Your task to perform on an android device: Open accessibility settings Image 0: 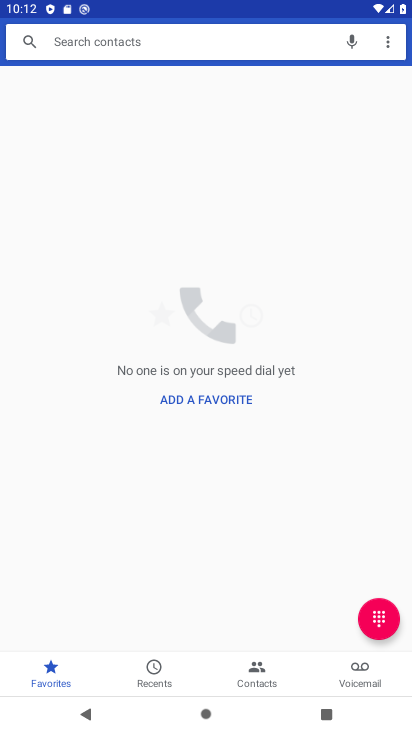
Step 0: press home button
Your task to perform on an android device: Open accessibility settings Image 1: 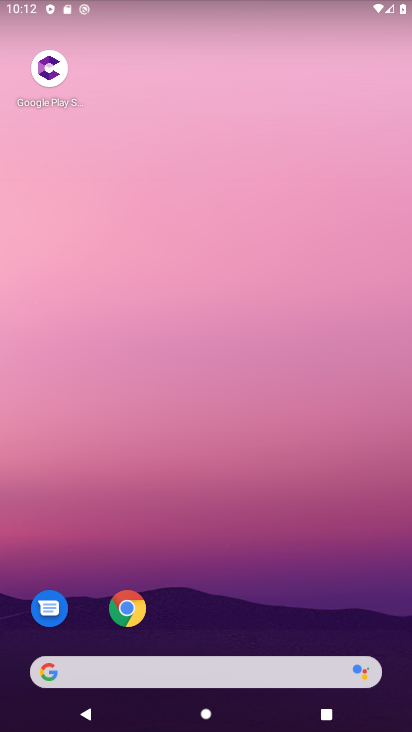
Step 1: drag from (351, 310) to (341, 247)
Your task to perform on an android device: Open accessibility settings Image 2: 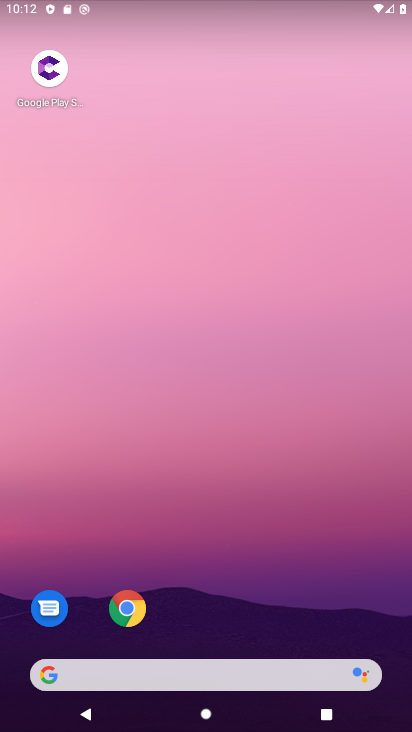
Step 2: drag from (406, 388) to (362, 112)
Your task to perform on an android device: Open accessibility settings Image 3: 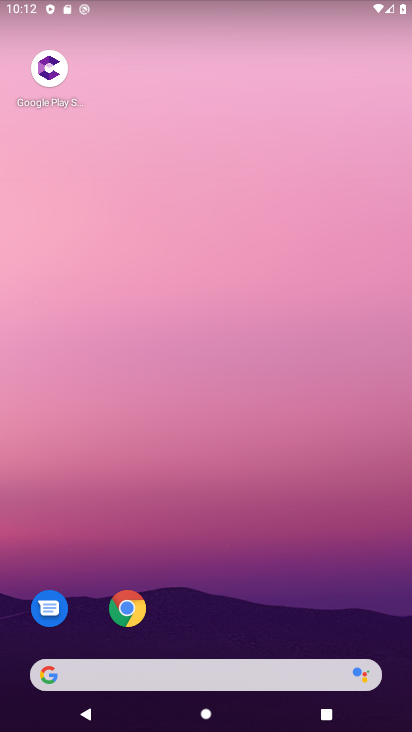
Step 3: drag from (398, 665) to (331, 21)
Your task to perform on an android device: Open accessibility settings Image 4: 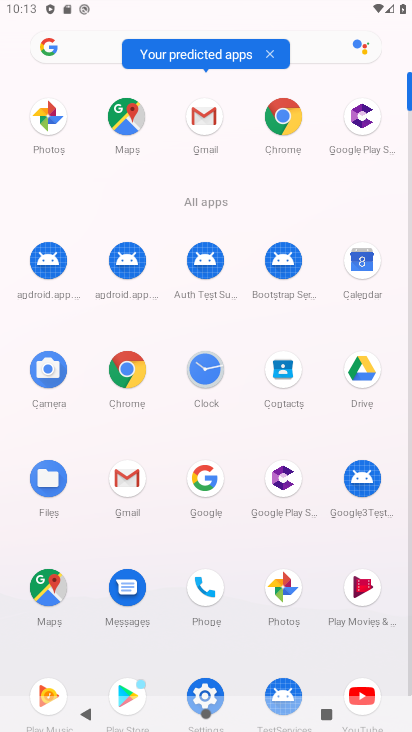
Step 4: click (202, 693)
Your task to perform on an android device: Open accessibility settings Image 5: 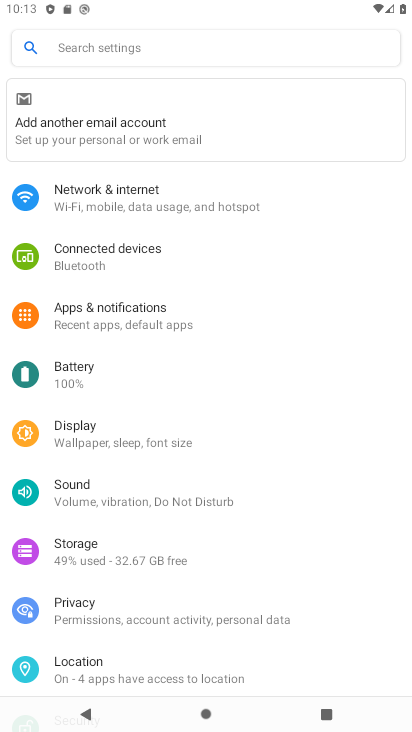
Step 5: drag from (355, 662) to (327, 272)
Your task to perform on an android device: Open accessibility settings Image 6: 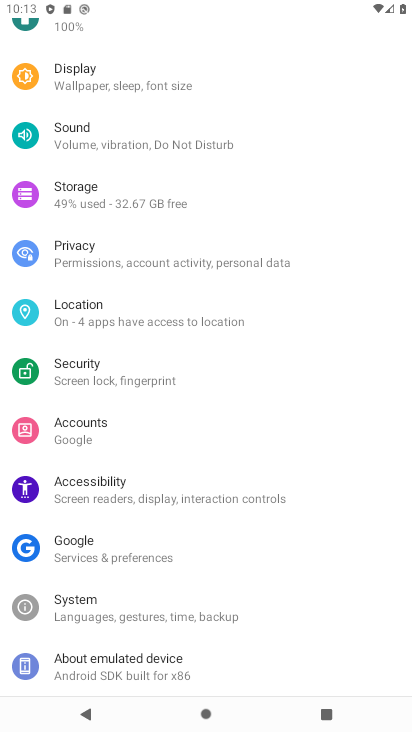
Step 6: click (110, 493)
Your task to perform on an android device: Open accessibility settings Image 7: 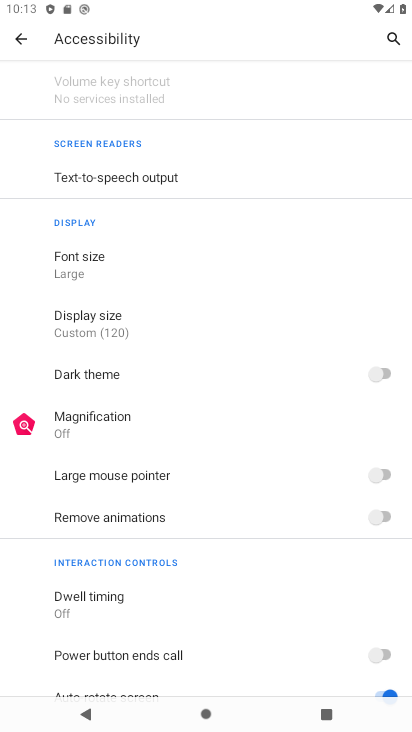
Step 7: drag from (278, 650) to (248, 325)
Your task to perform on an android device: Open accessibility settings Image 8: 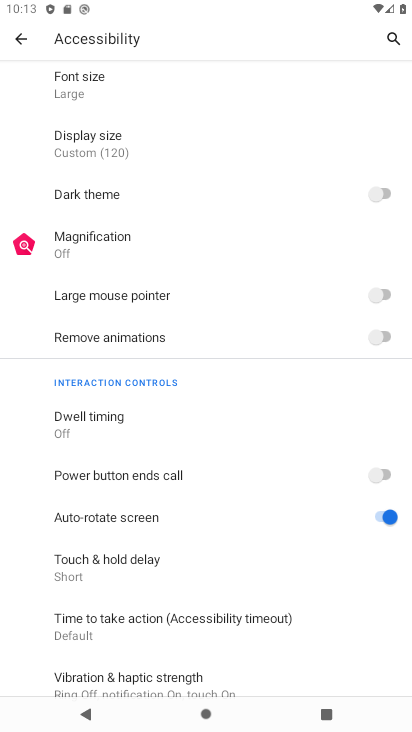
Step 8: click (302, 280)
Your task to perform on an android device: Open accessibility settings Image 9: 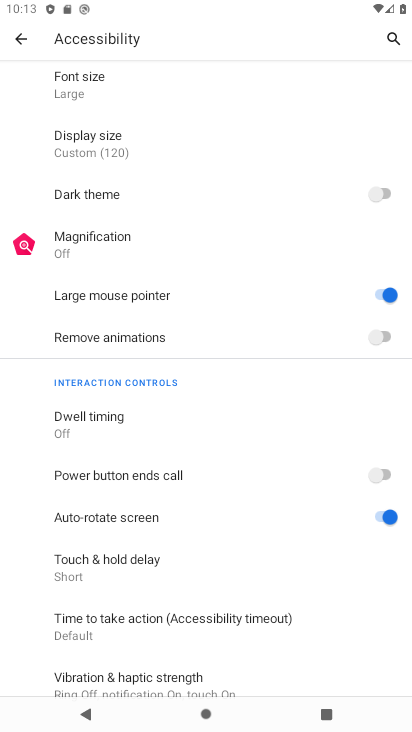
Step 9: task complete